Your task to perform on an android device: Go to CNN.com Image 0: 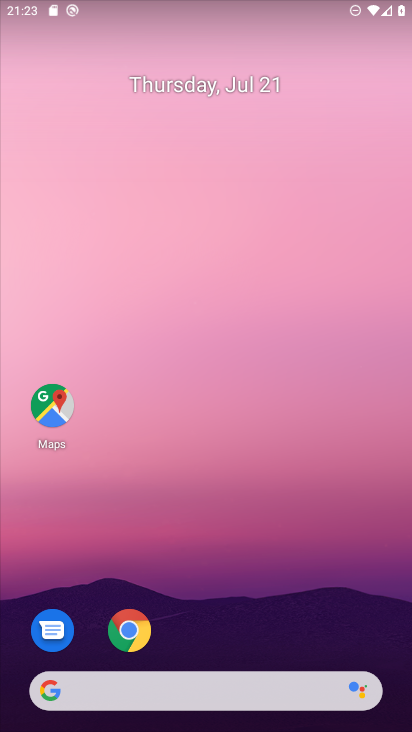
Step 0: drag from (232, 351) to (173, 90)
Your task to perform on an android device: Go to CNN.com Image 1: 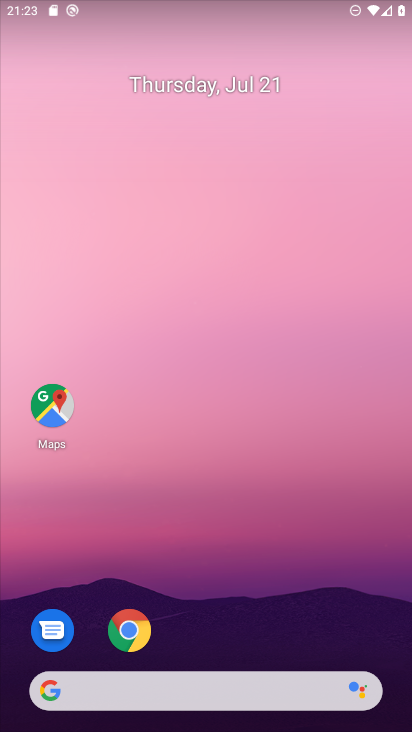
Step 1: drag from (290, 611) to (158, 16)
Your task to perform on an android device: Go to CNN.com Image 2: 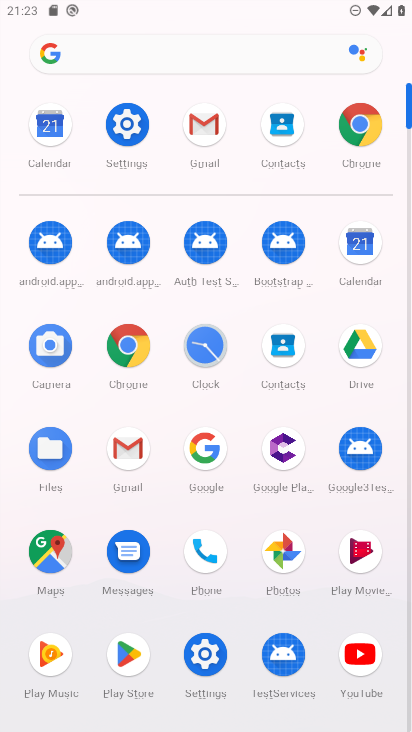
Step 2: click (357, 118)
Your task to perform on an android device: Go to CNN.com Image 3: 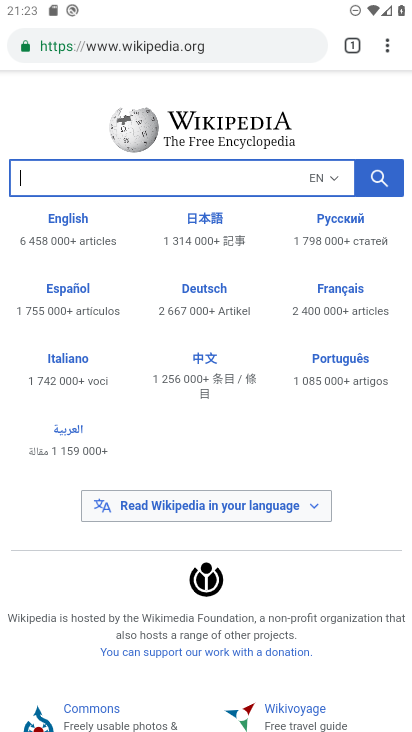
Step 3: click (124, 49)
Your task to perform on an android device: Go to CNN.com Image 4: 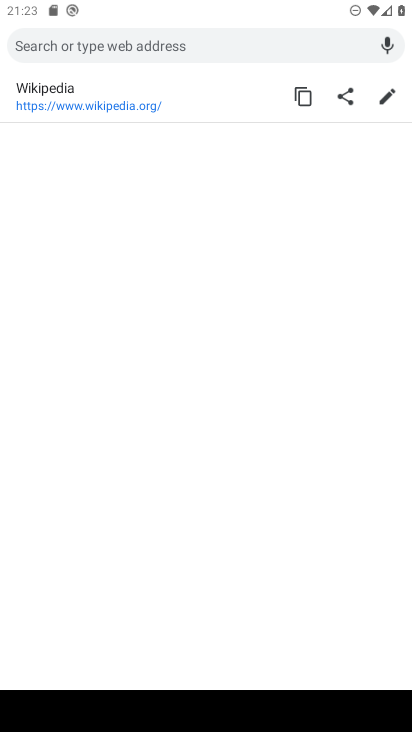
Step 4: type "cnn.com"
Your task to perform on an android device: Go to CNN.com Image 5: 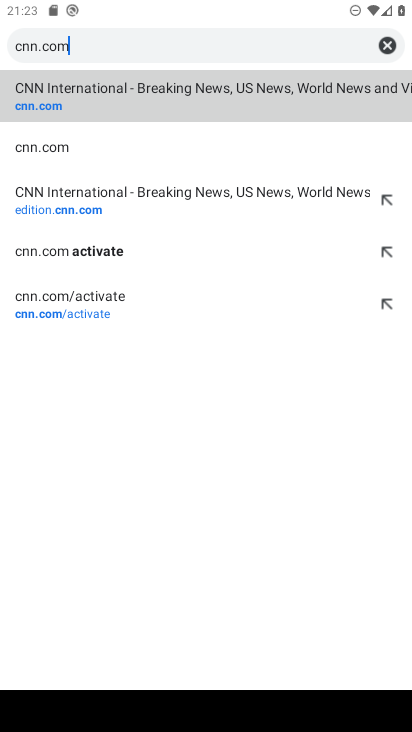
Step 5: click (13, 107)
Your task to perform on an android device: Go to CNN.com Image 6: 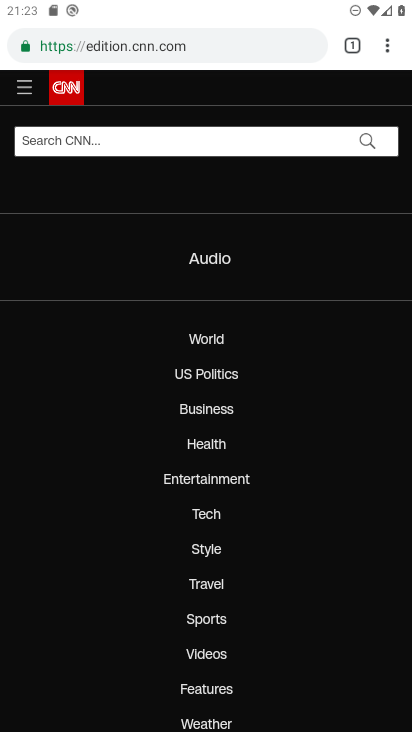
Step 6: task complete